Your task to perform on an android device: open a bookmark in the chrome app Image 0: 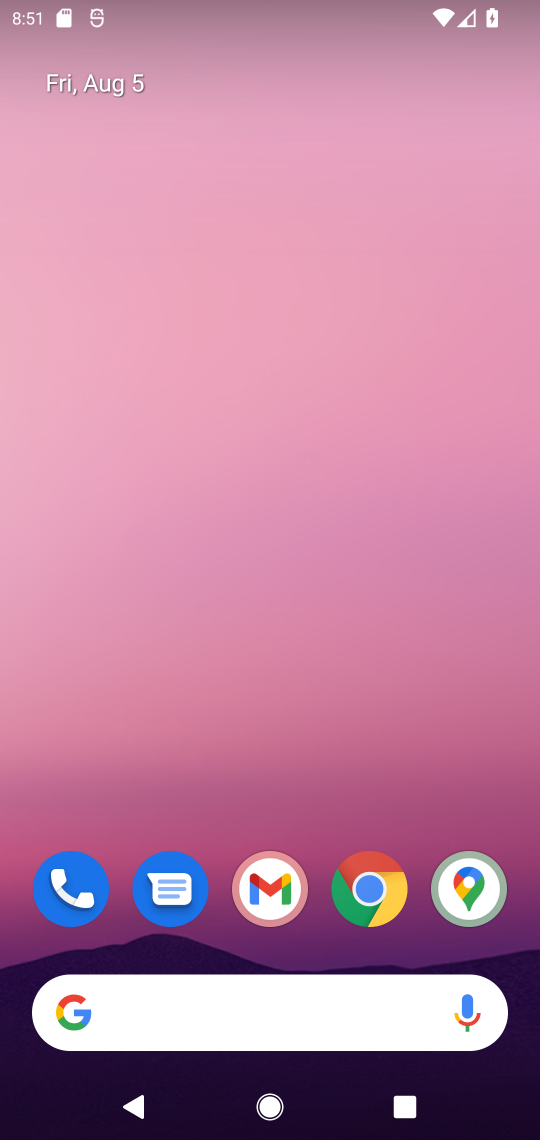
Step 0: drag from (313, 929) to (306, 232)
Your task to perform on an android device: open a bookmark in the chrome app Image 1: 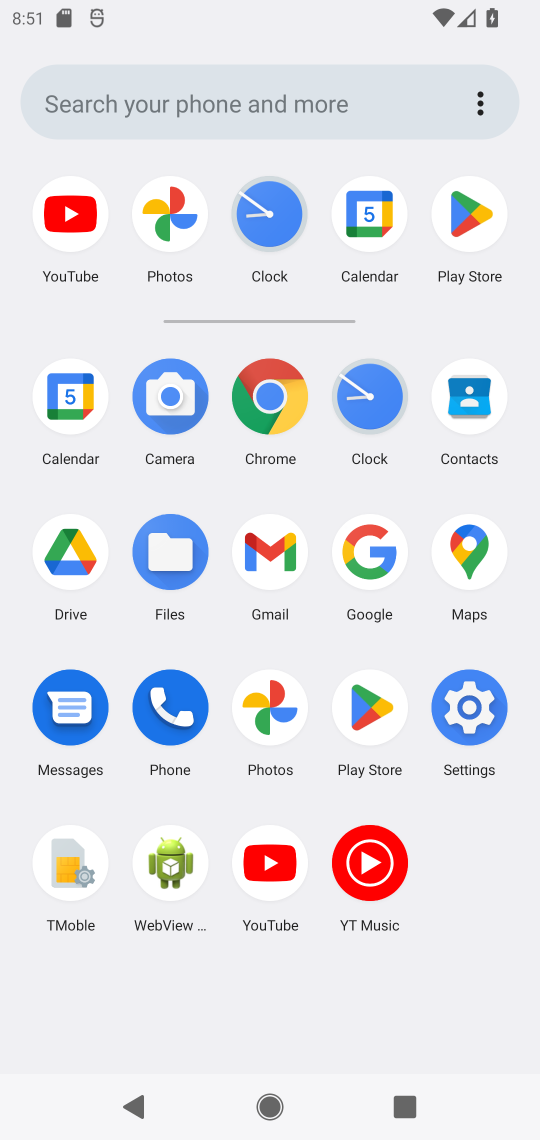
Step 1: click (261, 378)
Your task to perform on an android device: open a bookmark in the chrome app Image 2: 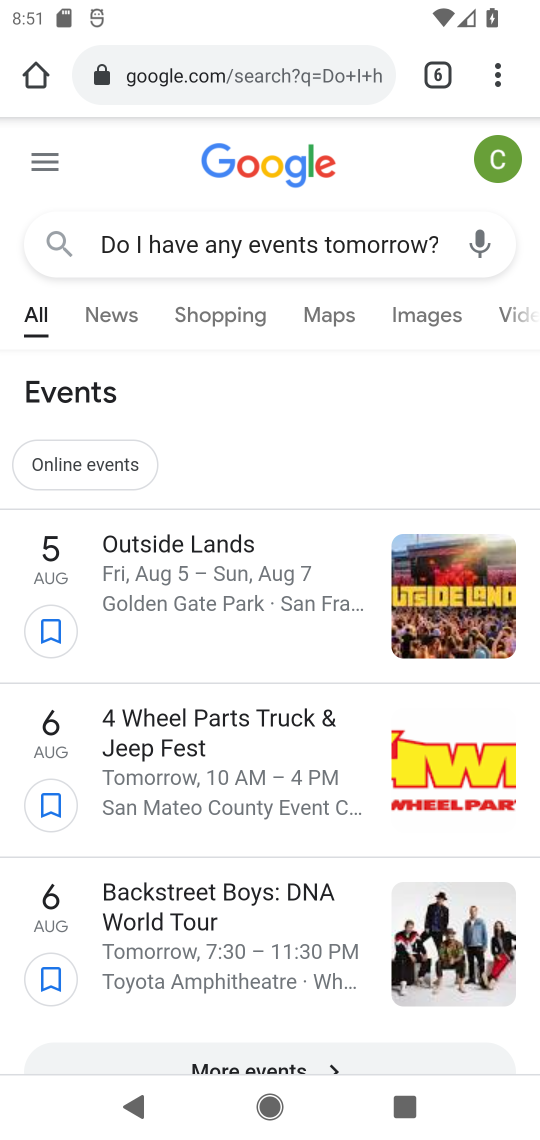
Step 2: click (511, 72)
Your task to perform on an android device: open a bookmark in the chrome app Image 3: 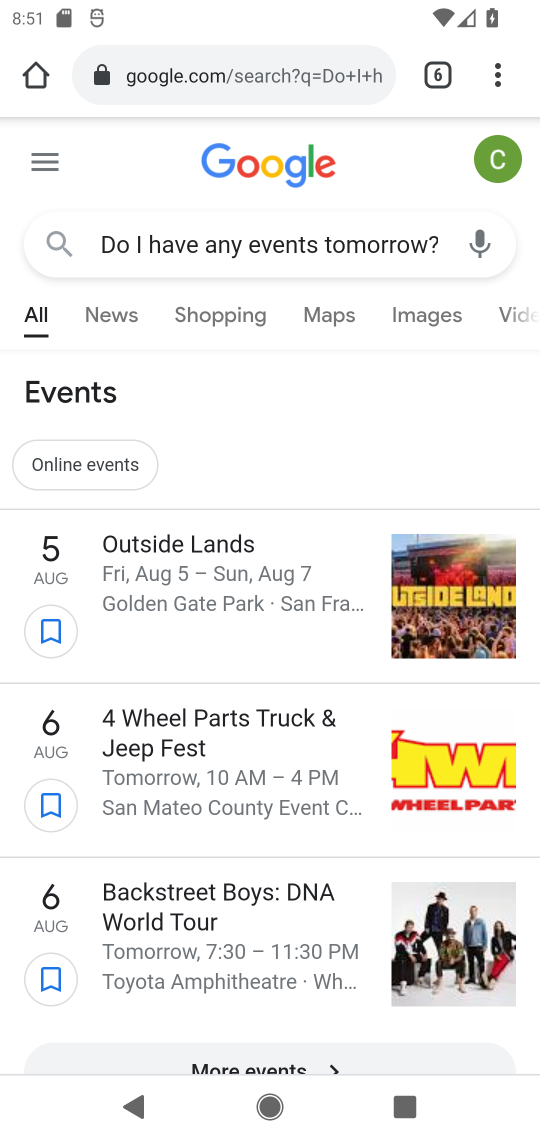
Step 3: click (496, 60)
Your task to perform on an android device: open a bookmark in the chrome app Image 4: 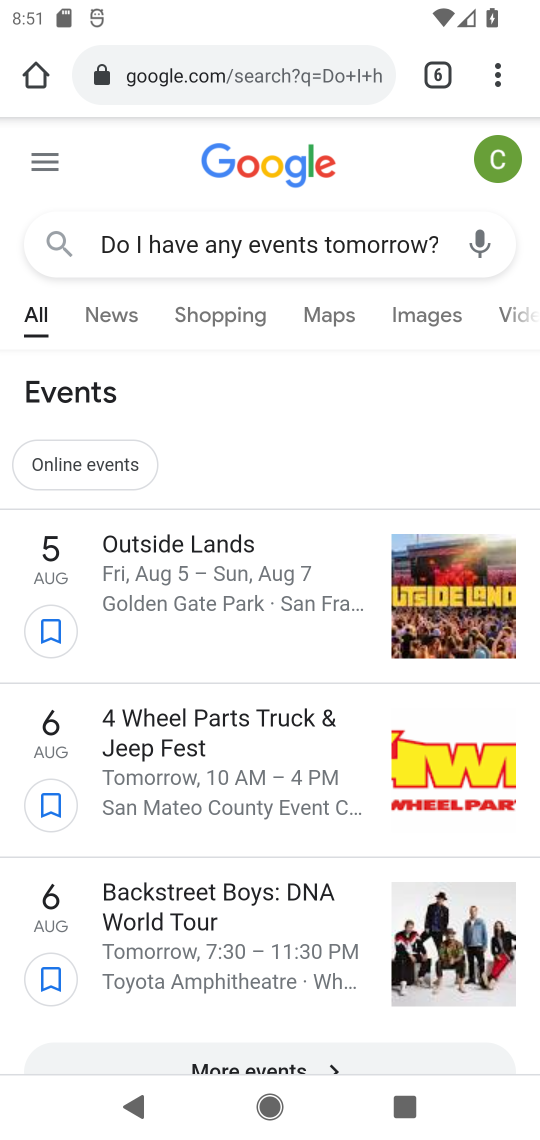
Step 4: click (486, 89)
Your task to perform on an android device: open a bookmark in the chrome app Image 5: 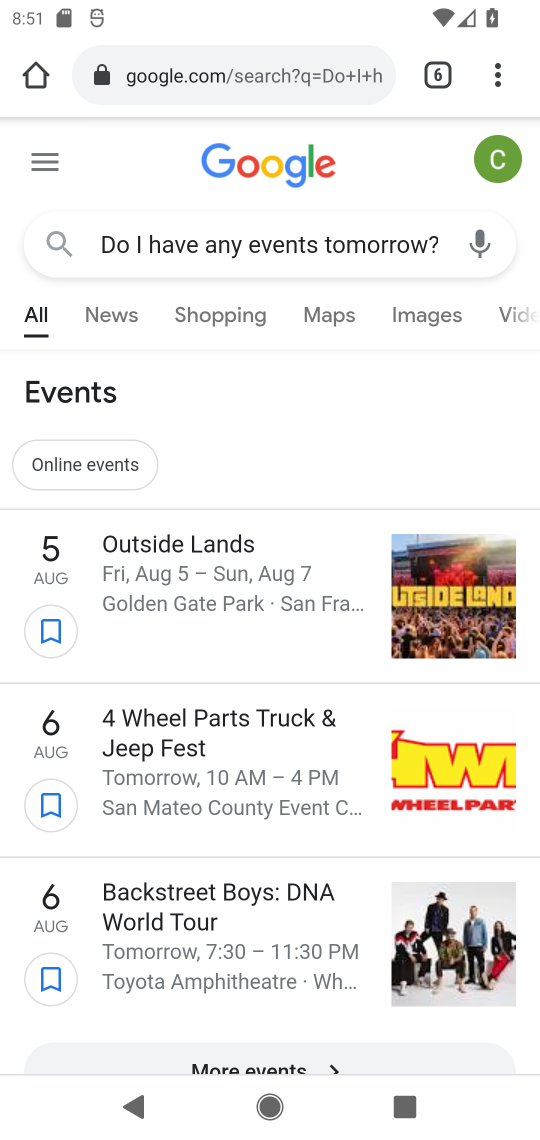
Step 5: click (504, 67)
Your task to perform on an android device: open a bookmark in the chrome app Image 6: 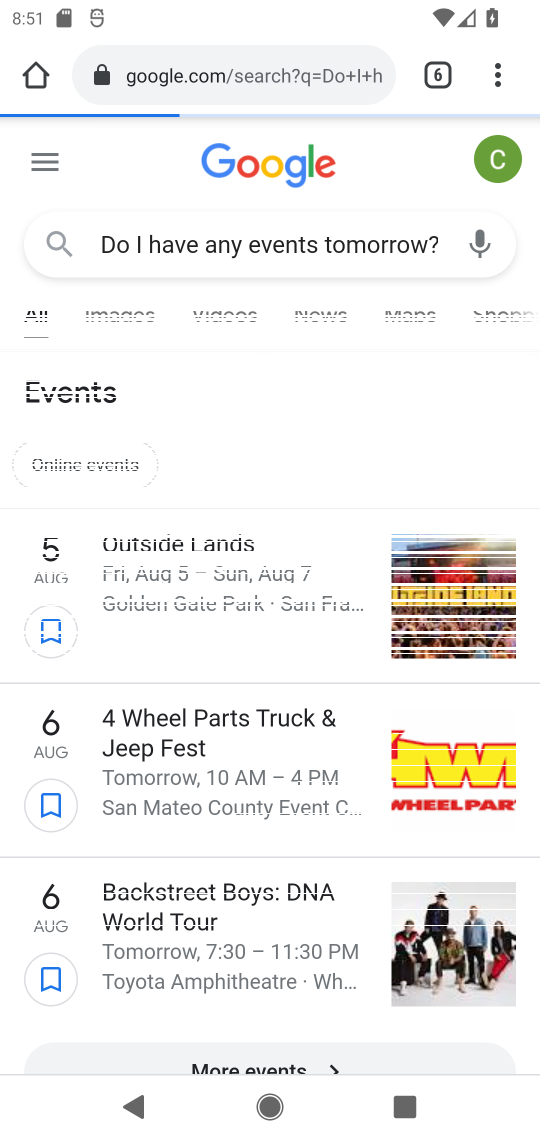
Step 6: click (504, 67)
Your task to perform on an android device: open a bookmark in the chrome app Image 7: 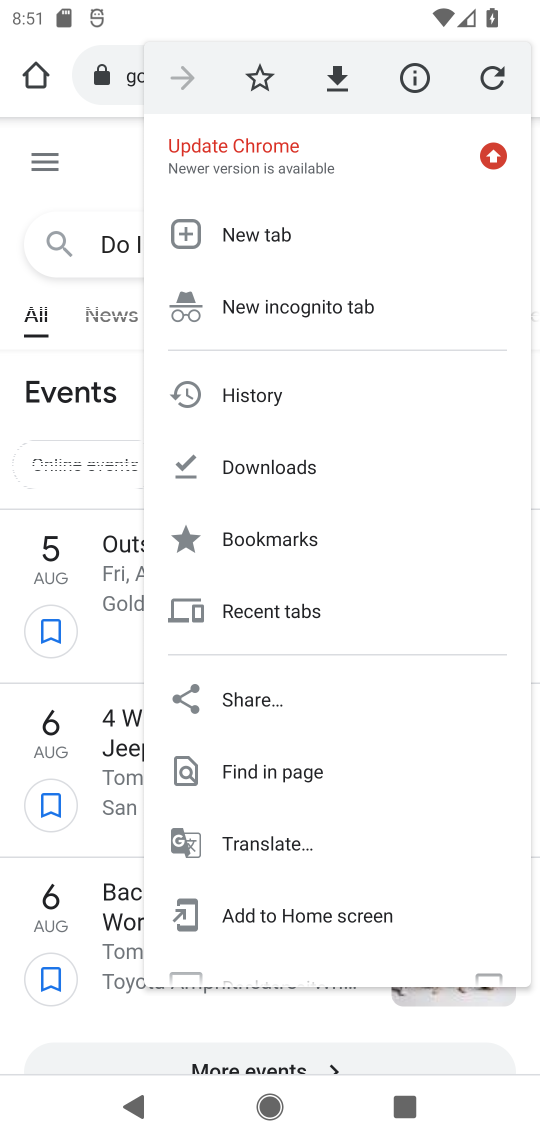
Step 7: click (264, 540)
Your task to perform on an android device: open a bookmark in the chrome app Image 8: 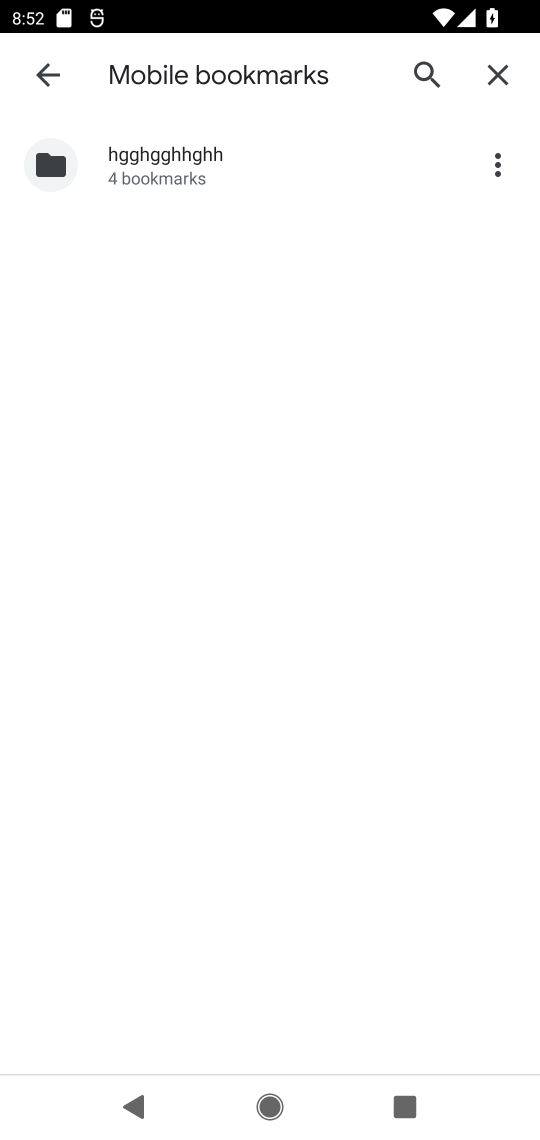
Step 8: task complete